Your task to perform on an android device: show emergency info Image 0: 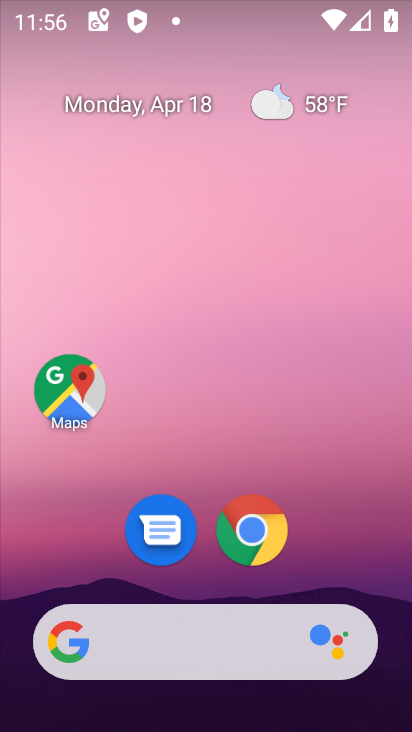
Step 0: drag from (214, 565) to (269, 52)
Your task to perform on an android device: show emergency info Image 1: 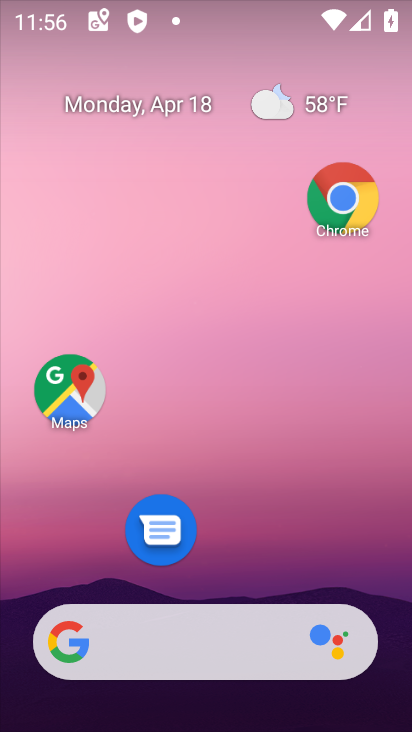
Step 1: drag from (250, 582) to (243, 162)
Your task to perform on an android device: show emergency info Image 2: 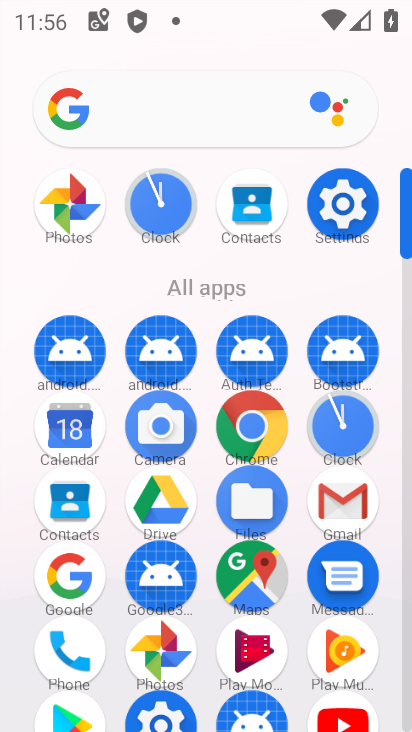
Step 2: click (340, 213)
Your task to perform on an android device: show emergency info Image 3: 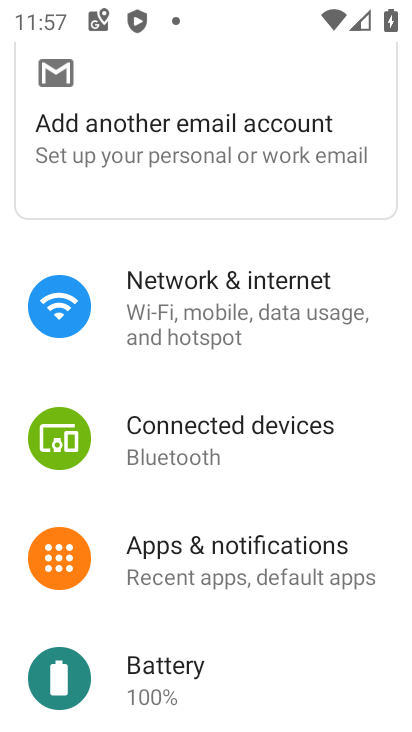
Step 3: drag from (270, 579) to (257, 171)
Your task to perform on an android device: show emergency info Image 4: 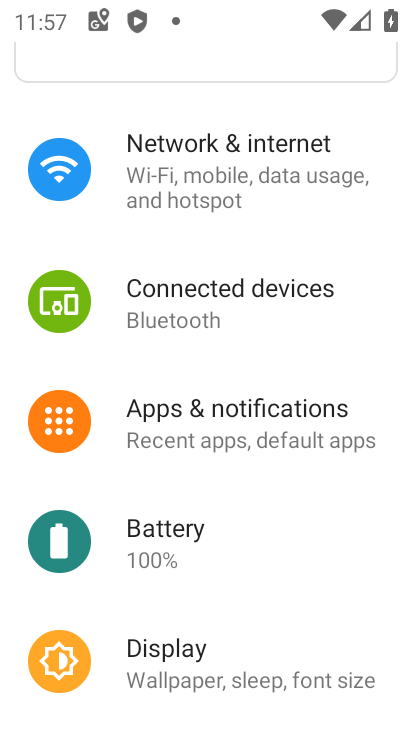
Step 4: drag from (308, 545) to (305, 205)
Your task to perform on an android device: show emergency info Image 5: 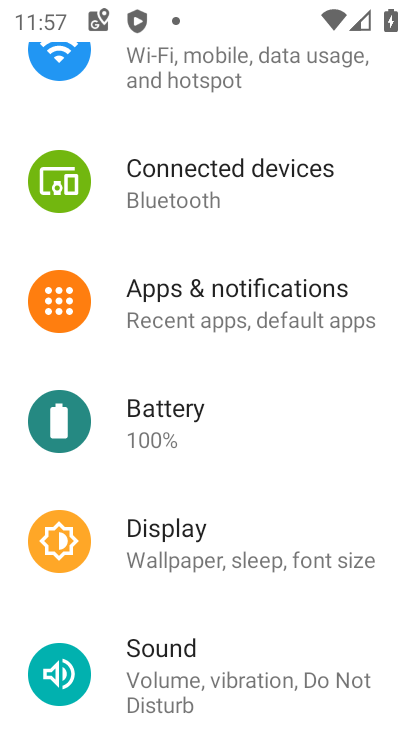
Step 5: drag from (278, 650) to (238, 252)
Your task to perform on an android device: show emergency info Image 6: 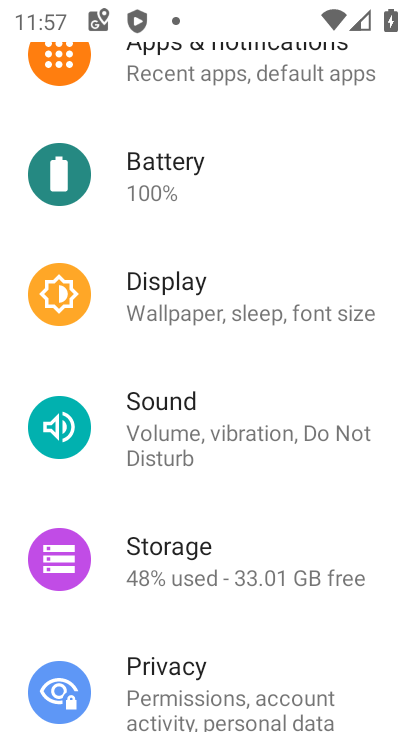
Step 6: drag from (290, 585) to (307, 161)
Your task to perform on an android device: show emergency info Image 7: 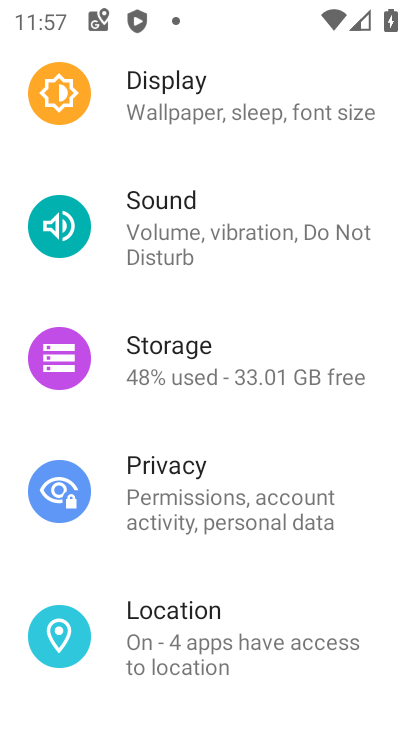
Step 7: drag from (311, 644) to (315, 242)
Your task to perform on an android device: show emergency info Image 8: 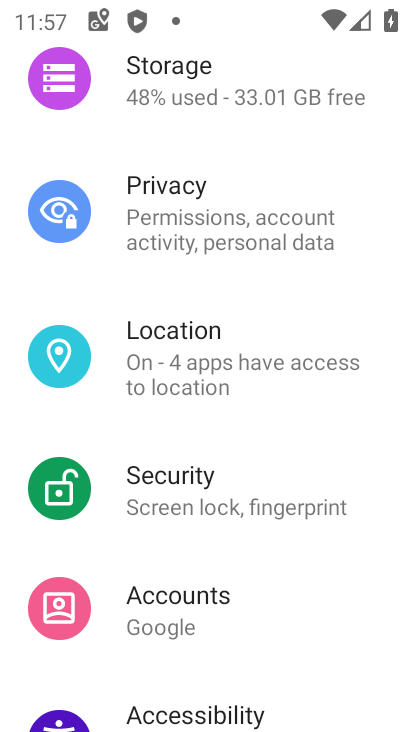
Step 8: drag from (271, 555) to (287, 192)
Your task to perform on an android device: show emergency info Image 9: 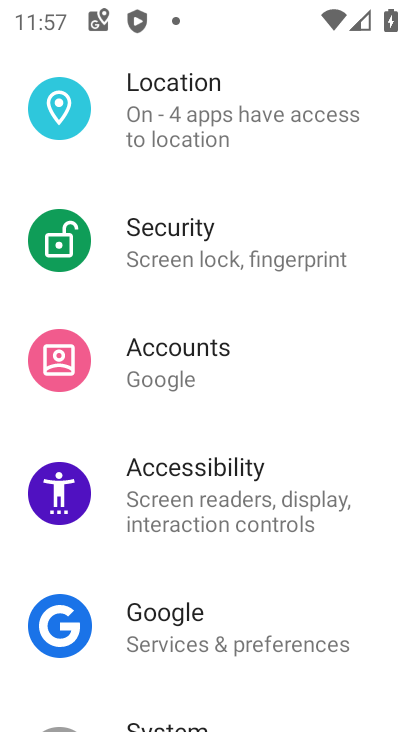
Step 9: drag from (275, 569) to (308, 209)
Your task to perform on an android device: show emergency info Image 10: 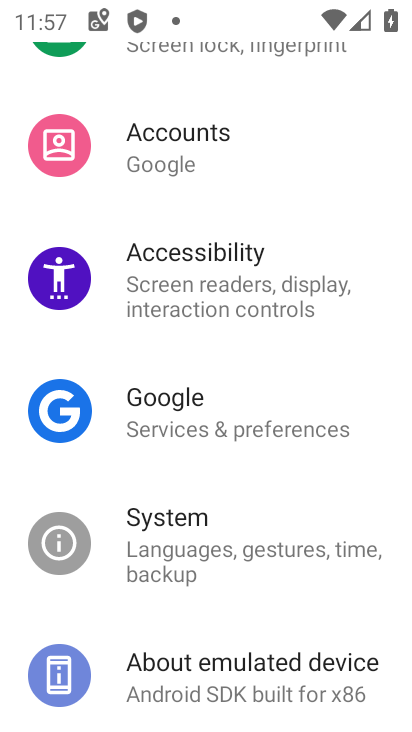
Step 10: click (226, 668)
Your task to perform on an android device: show emergency info Image 11: 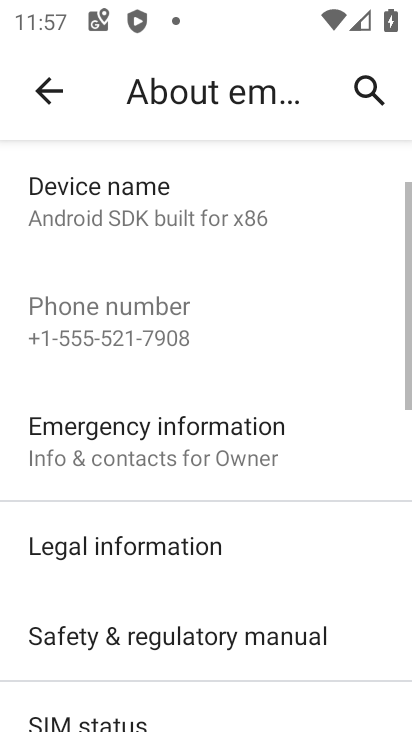
Step 11: click (162, 453)
Your task to perform on an android device: show emergency info Image 12: 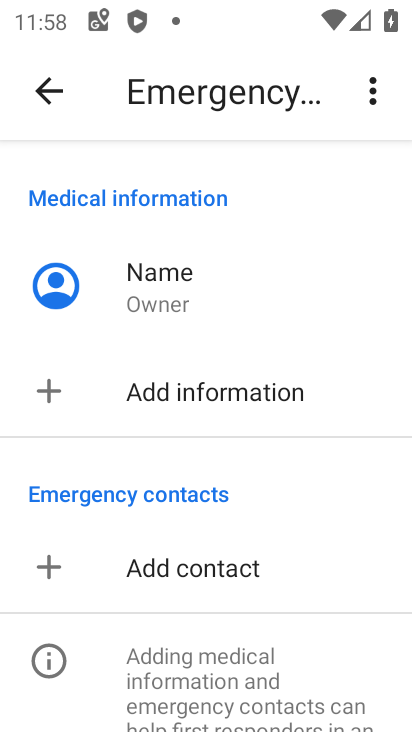
Step 12: task complete